Your task to perform on an android device: turn on javascript in the chrome app Image 0: 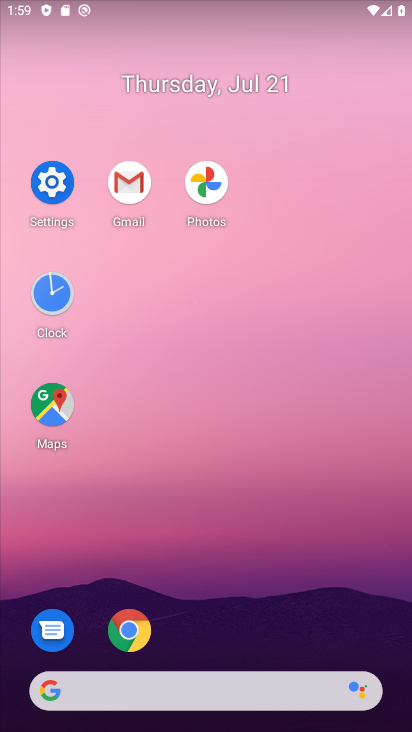
Step 0: click (123, 650)
Your task to perform on an android device: turn on javascript in the chrome app Image 1: 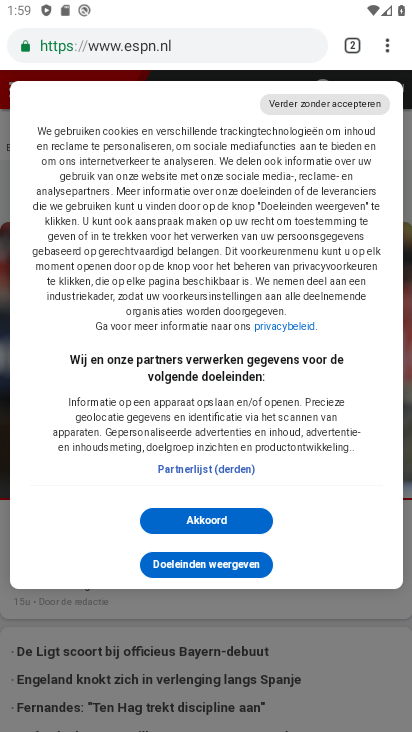
Step 1: click (386, 44)
Your task to perform on an android device: turn on javascript in the chrome app Image 2: 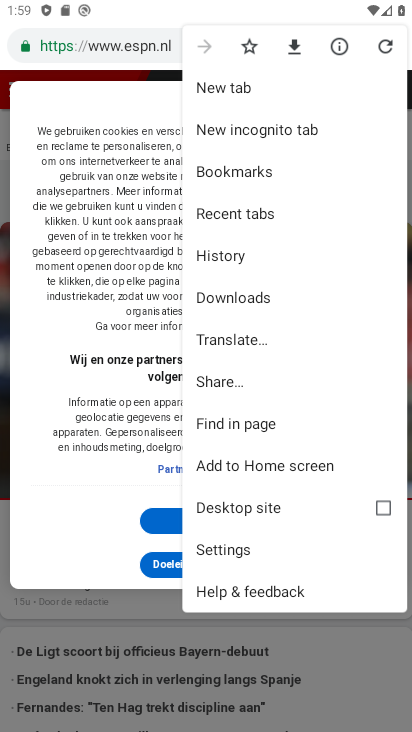
Step 2: click (245, 546)
Your task to perform on an android device: turn on javascript in the chrome app Image 3: 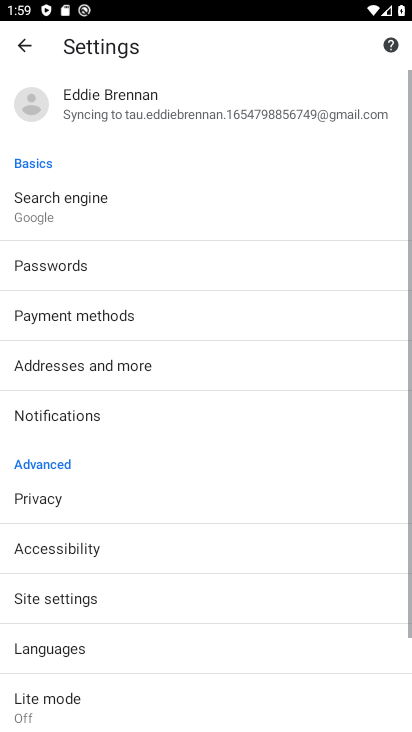
Step 3: drag from (215, 557) to (239, 172)
Your task to perform on an android device: turn on javascript in the chrome app Image 4: 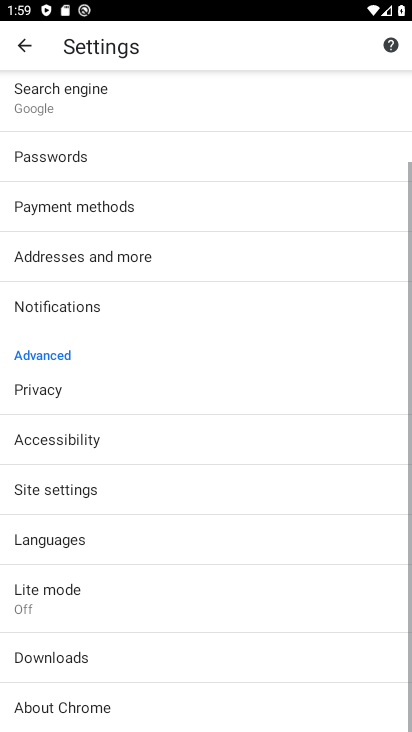
Step 4: drag from (211, 540) to (202, 255)
Your task to perform on an android device: turn on javascript in the chrome app Image 5: 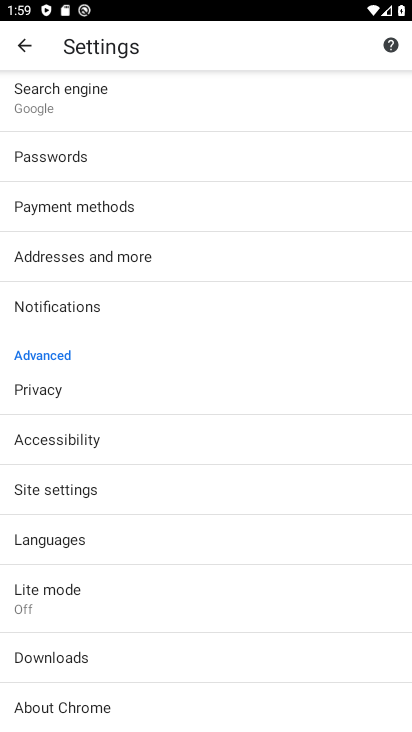
Step 5: click (171, 490)
Your task to perform on an android device: turn on javascript in the chrome app Image 6: 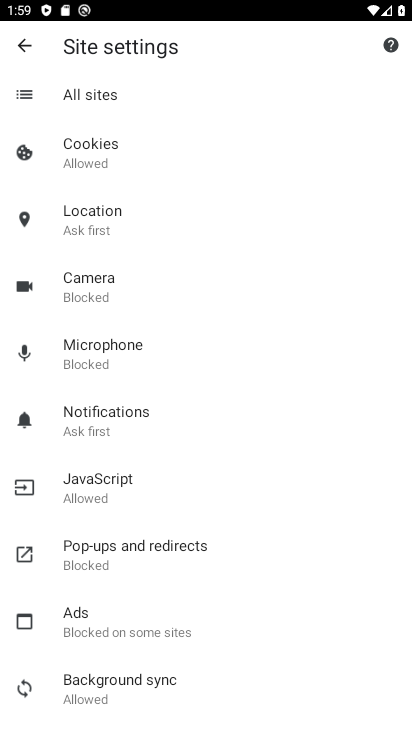
Step 6: click (150, 505)
Your task to perform on an android device: turn on javascript in the chrome app Image 7: 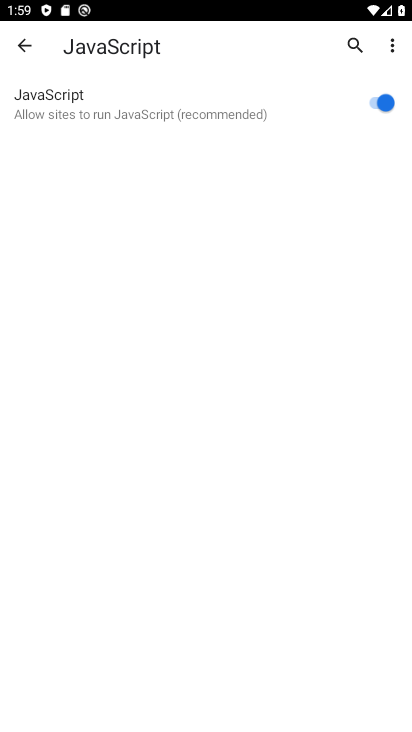
Step 7: task complete